Your task to perform on an android device: Search for asus zenbook on bestbuy.com, select the first entry, add it to the cart, then select checkout. Image 0: 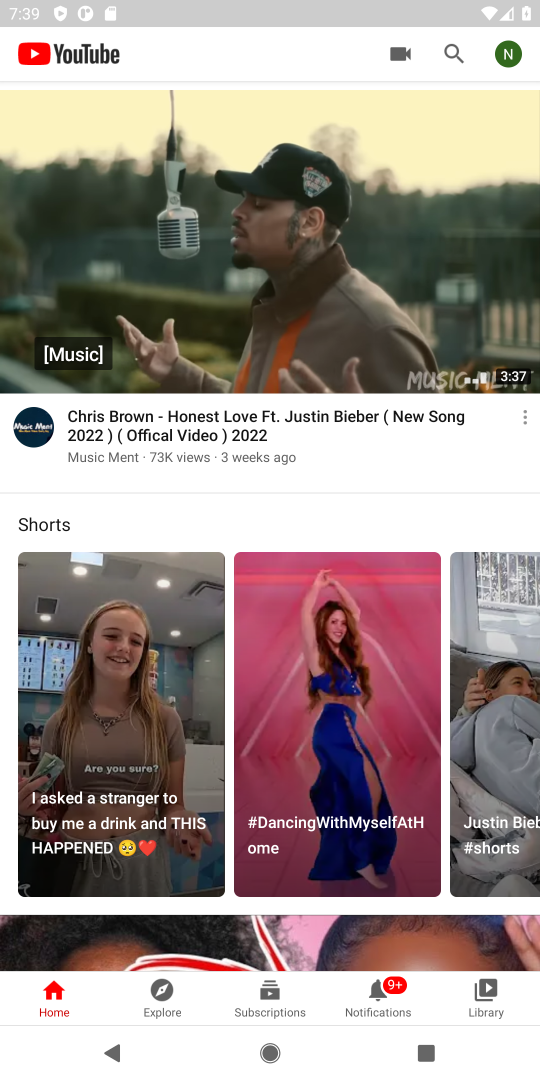
Step 0: press home button
Your task to perform on an android device: Search for asus zenbook on bestbuy.com, select the first entry, add it to the cart, then select checkout. Image 1: 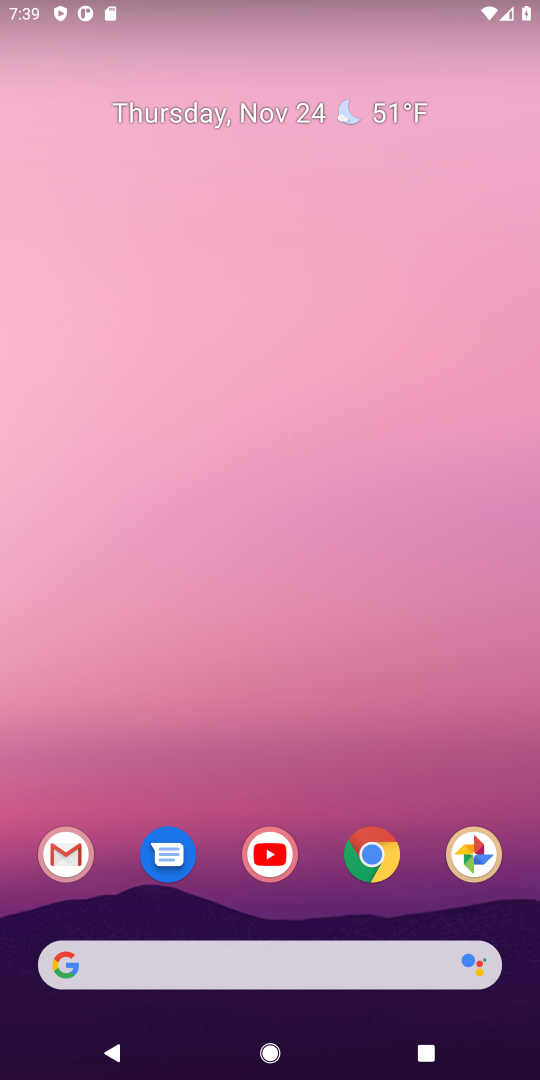
Step 1: click (371, 858)
Your task to perform on an android device: Search for asus zenbook on bestbuy.com, select the first entry, add it to the cart, then select checkout. Image 2: 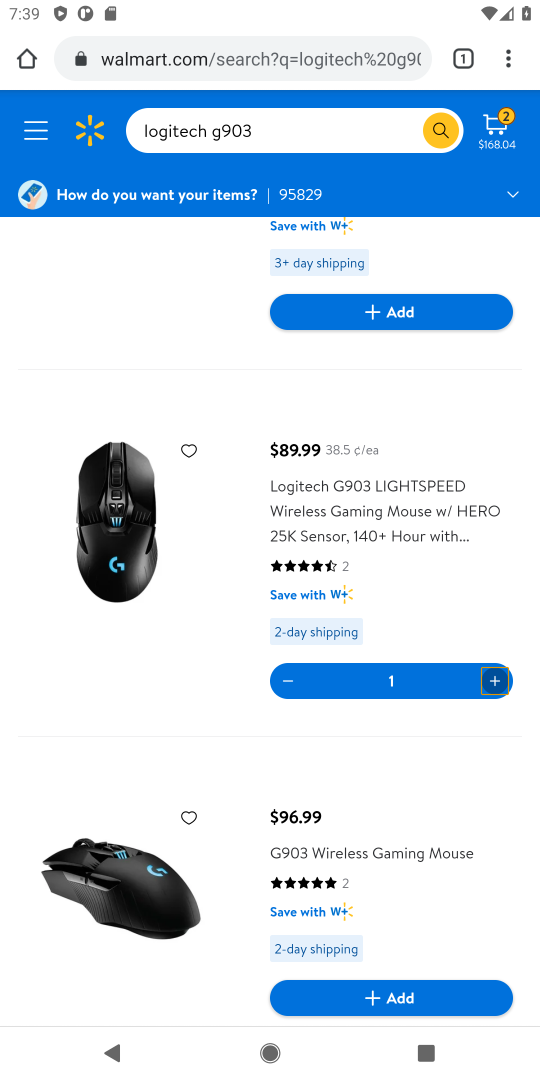
Step 2: click (179, 52)
Your task to perform on an android device: Search for asus zenbook on bestbuy.com, select the first entry, add it to the cart, then select checkout. Image 3: 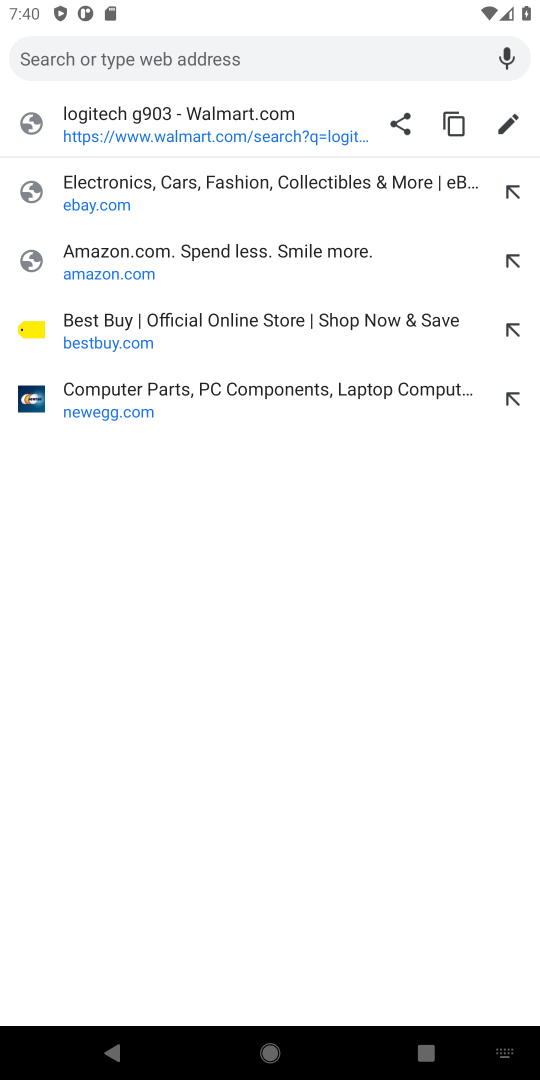
Step 3: click (79, 322)
Your task to perform on an android device: Search for asus zenbook on bestbuy.com, select the first entry, add it to the cart, then select checkout. Image 4: 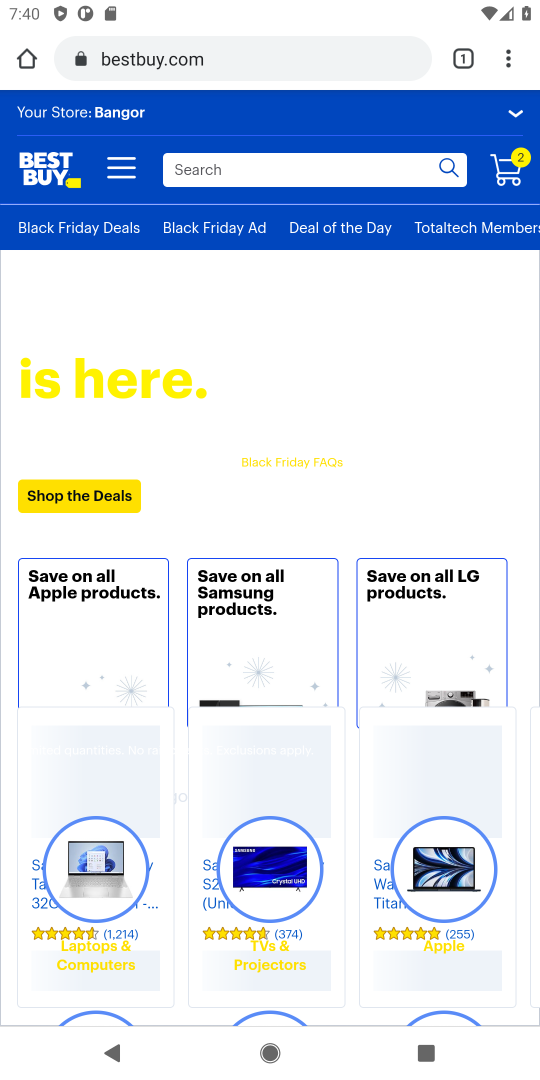
Step 4: click (245, 177)
Your task to perform on an android device: Search for asus zenbook on bestbuy.com, select the first entry, add it to the cart, then select checkout. Image 5: 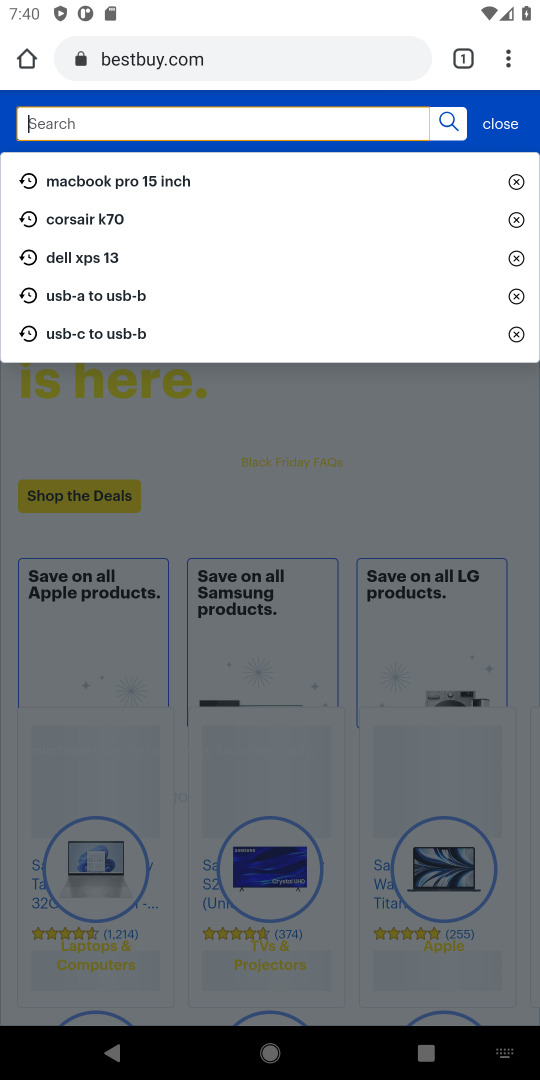
Step 5: type "asus zenbook"
Your task to perform on an android device: Search for asus zenbook on bestbuy.com, select the first entry, add it to the cart, then select checkout. Image 6: 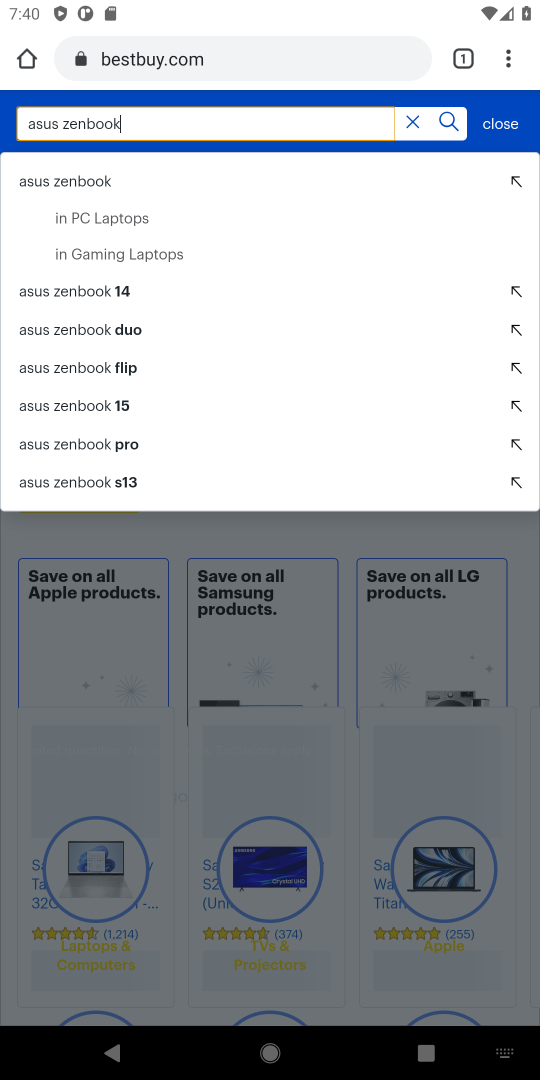
Step 6: click (66, 187)
Your task to perform on an android device: Search for asus zenbook on bestbuy.com, select the first entry, add it to the cart, then select checkout. Image 7: 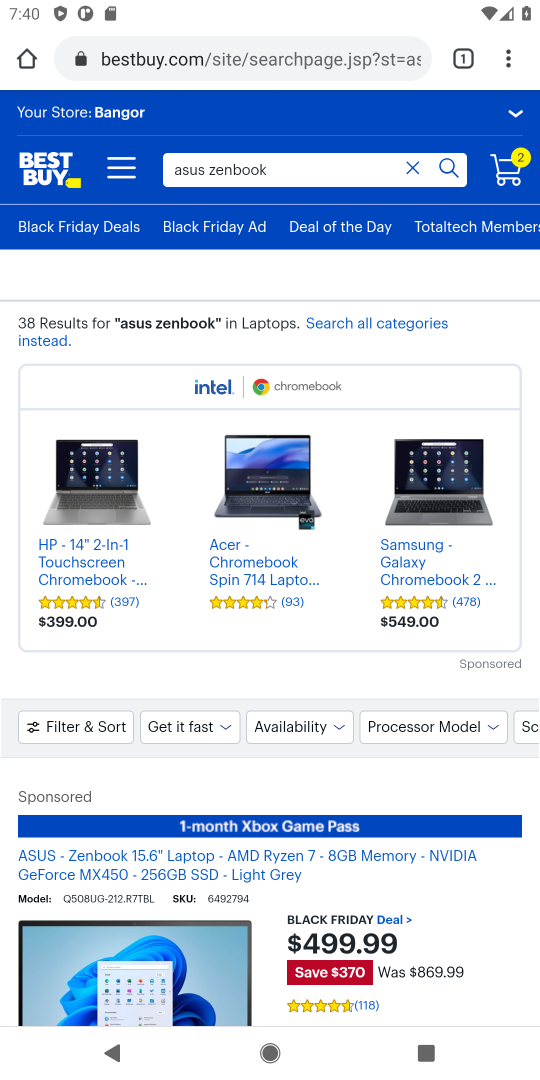
Step 7: drag from (236, 658) to (221, 369)
Your task to perform on an android device: Search for asus zenbook on bestbuy.com, select the first entry, add it to the cart, then select checkout. Image 8: 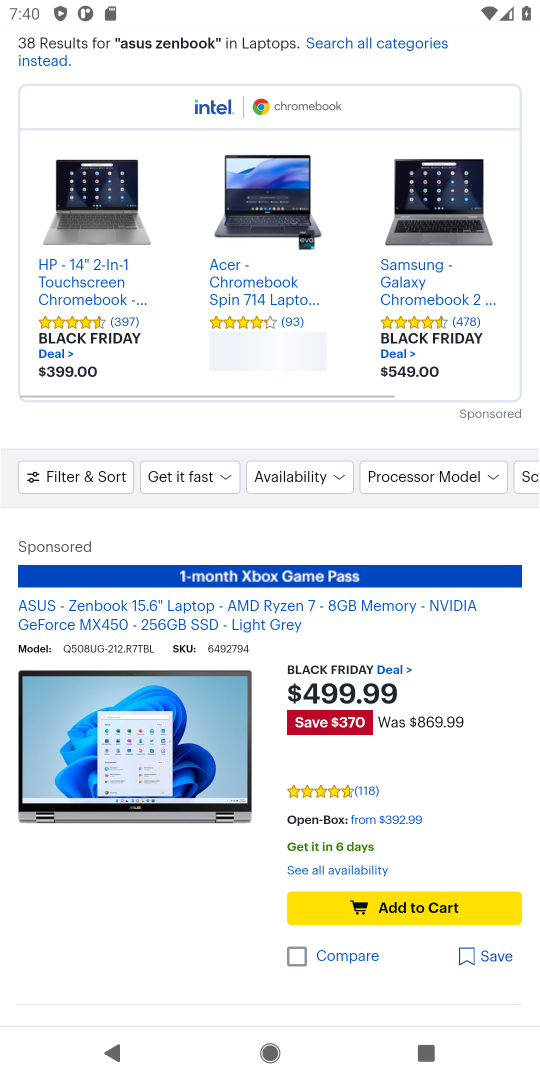
Step 8: click (403, 847)
Your task to perform on an android device: Search for asus zenbook on bestbuy.com, select the first entry, add it to the cart, then select checkout. Image 9: 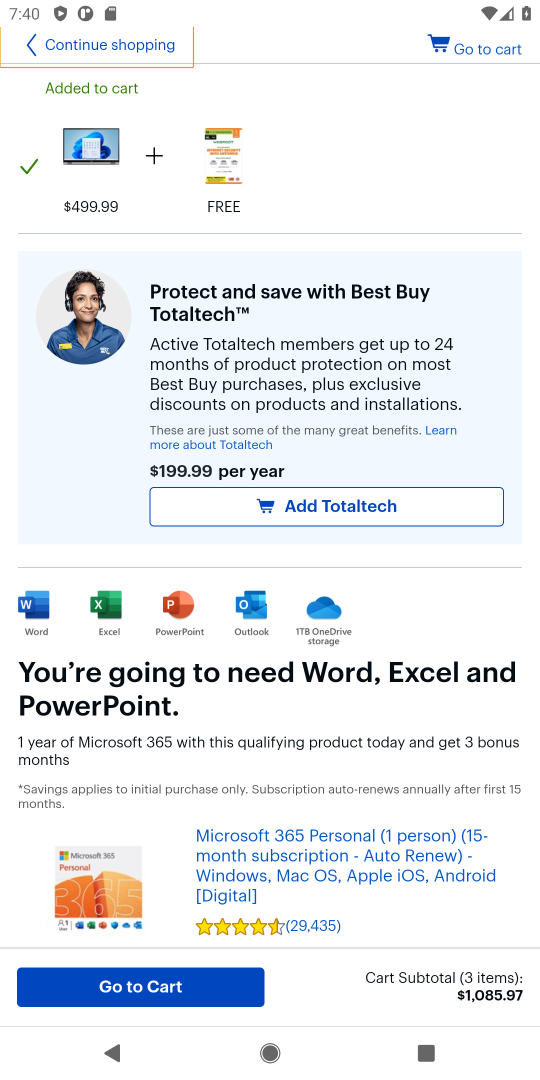
Step 9: click (486, 53)
Your task to perform on an android device: Search for asus zenbook on bestbuy.com, select the first entry, add it to the cart, then select checkout. Image 10: 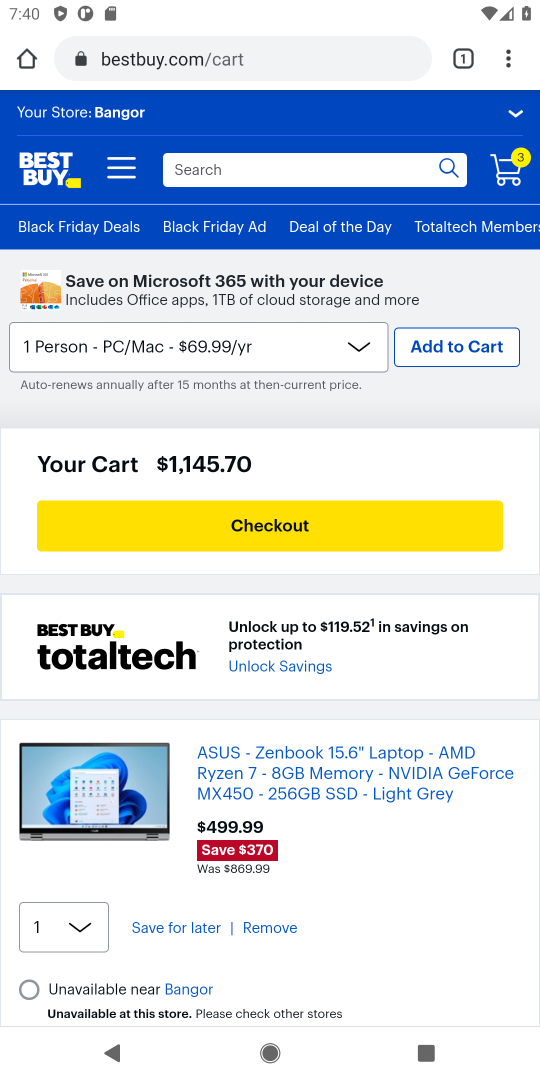
Step 10: click (227, 528)
Your task to perform on an android device: Search for asus zenbook on bestbuy.com, select the first entry, add it to the cart, then select checkout. Image 11: 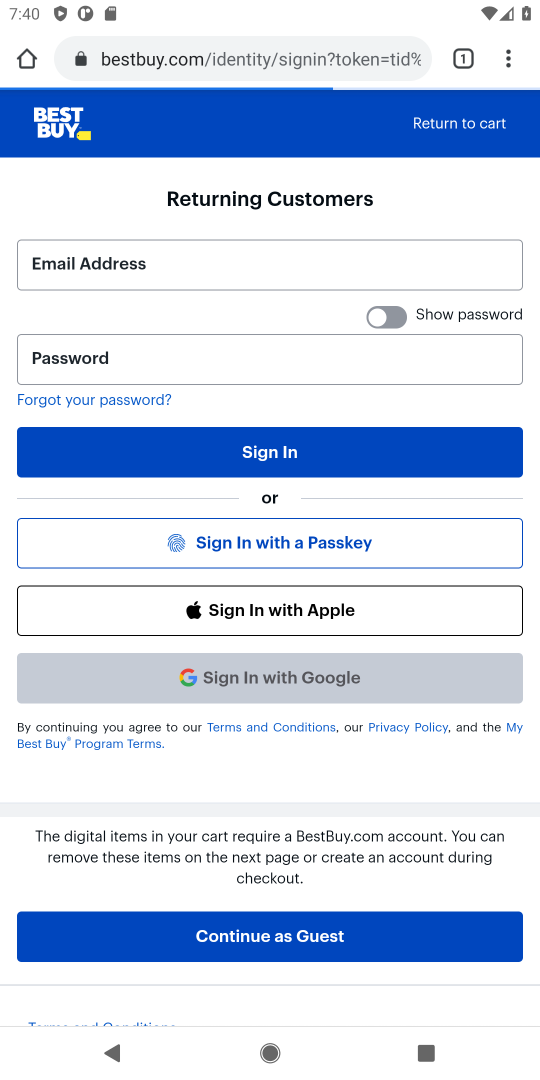
Step 11: task complete